Your task to perform on an android device: turn on showing notifications on the lock screen Image 0: 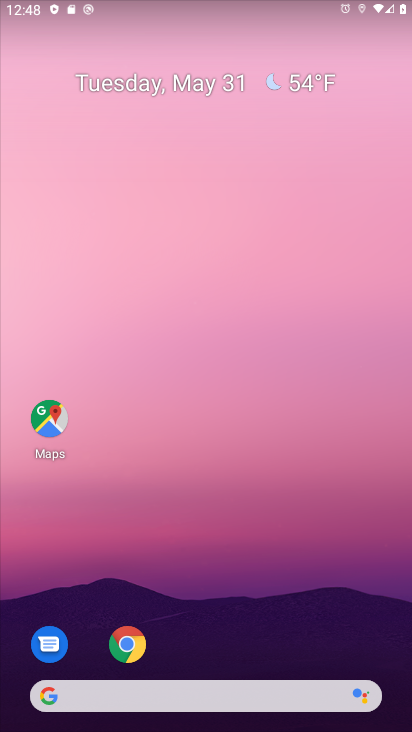
Step 0: drag from (232, 642) to (262, 182)
Your task to perform on an android device: turn on showing notifications on the lock screen Image 1: 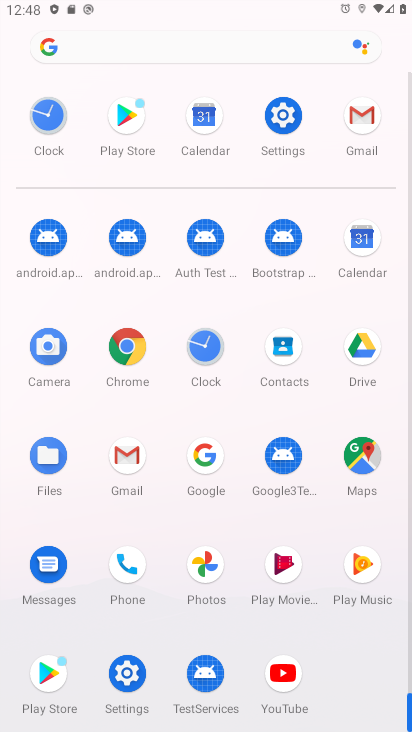
Step 1: click (288, 126)
Your task to perform on an android device: turn on showing notifications on the lock screen Image 2: 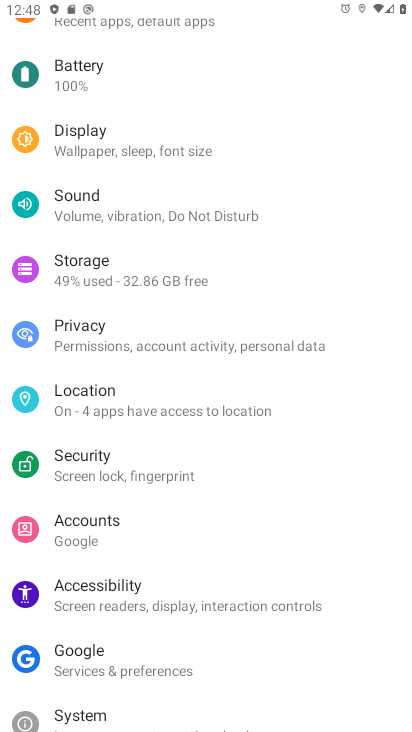
Step 2: drag from (309, 139) to (293, 584)
Your task to perform on an android device: turn on showing notifications on the lock screen Image 3: 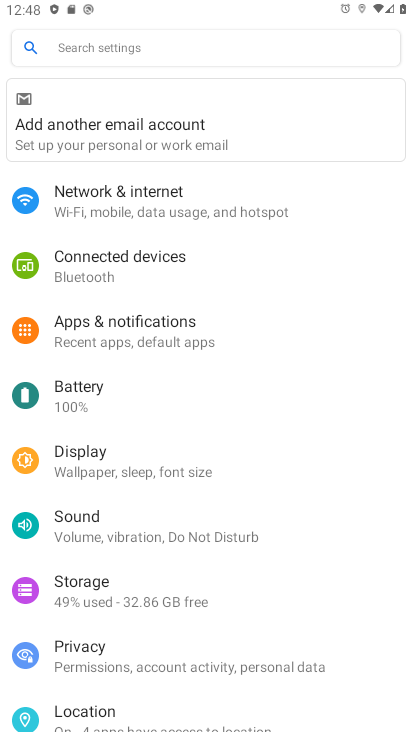
Step 3: click (120, 324)
Your task to perform on an android device: turn on showing notifications on the lock screen Image 4: 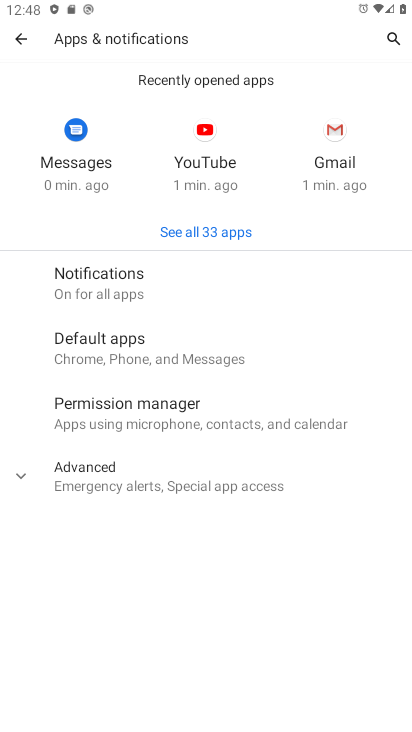
Step 4: click (97, 280)
Your task to perform on an android device: turn on showing notifications on the lock screen Image 5: 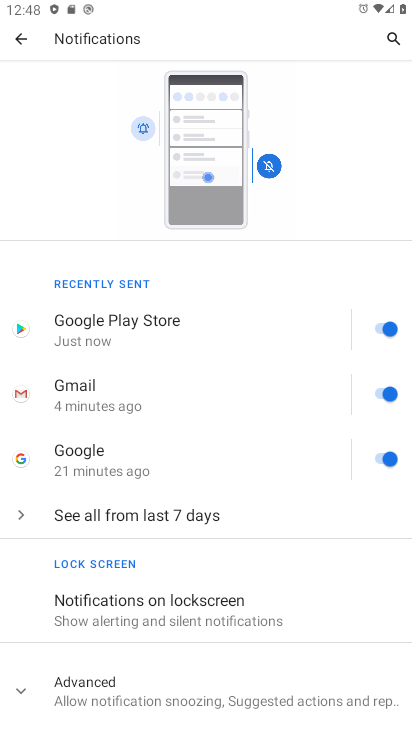
Step 5: click (151, 603)
Your task to perform on an android device: turn on showing notifications on the lock screen Image 6: 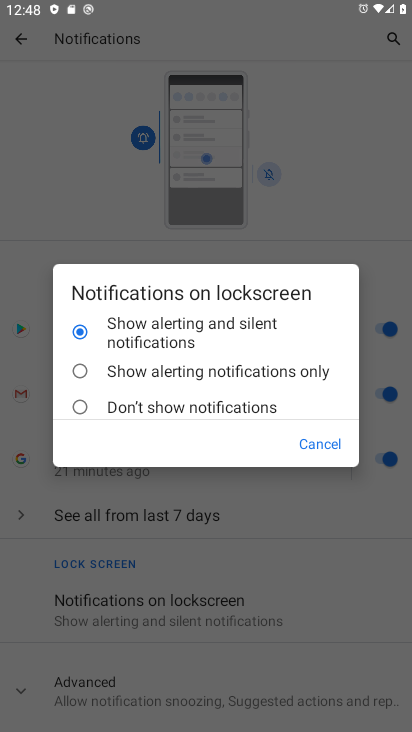
Step 6: task complete